Your task to perform on an android device: change notifications settings Image 0: 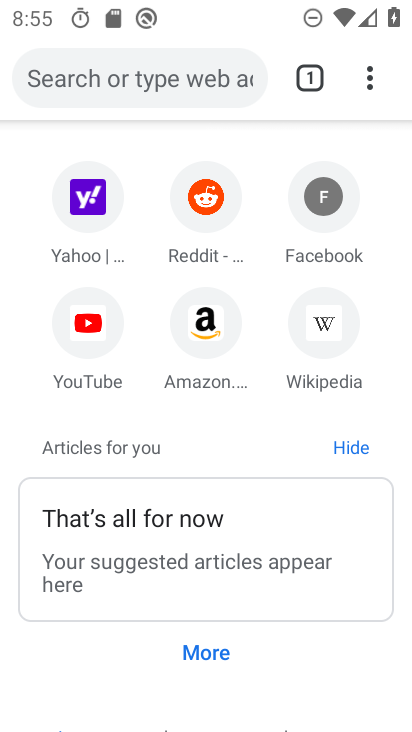
Step 0: press home button
Your task to perform on an android device: change notifications settings Image 1: 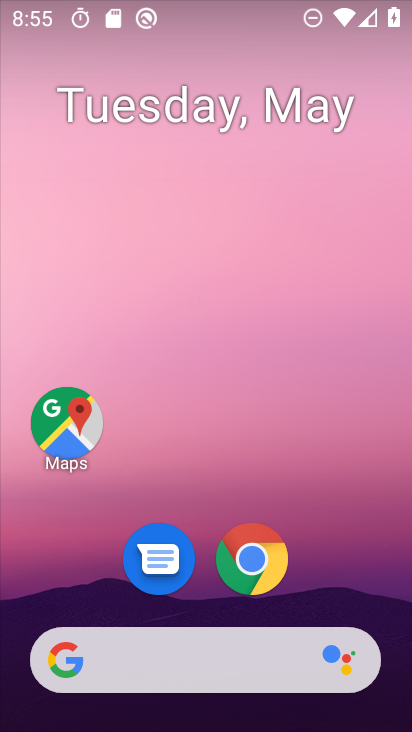
Step 1: drag from (390, 652) to (220, 58)
Your task to perform on an android device: change notifications settings Image 2: 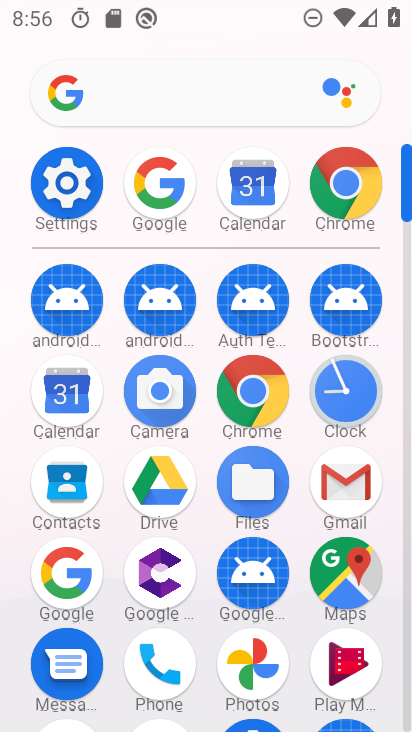
Step 2: click (65, 199)
Your task to perform on an android device: change notifications settings Image 3: 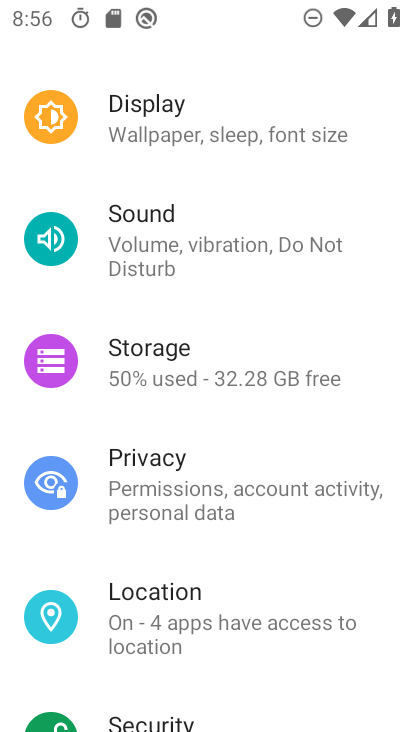
Step 3: drag from (219, 181) to (211, 643)
Your task to perform on an android device: change notifications settings Image 4: 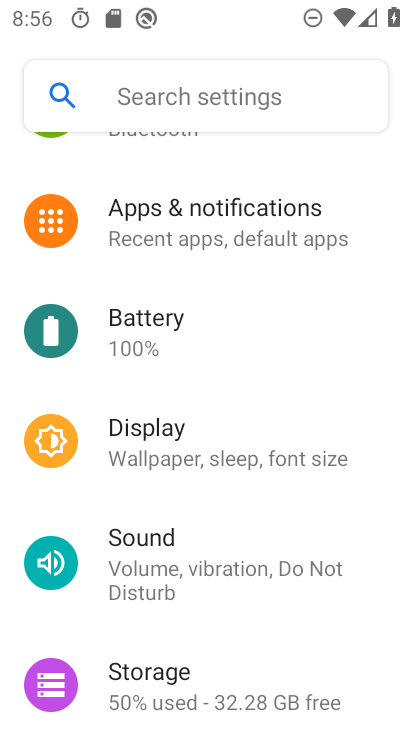
Step 4: click (262, 252)
Your task to perform on an android device: change notifications settings Image 5: 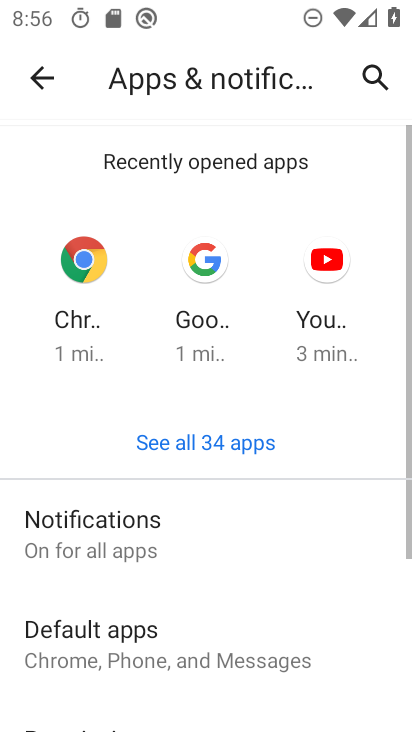
Step 5: click (206, 538)
Your task to perform on an android device: change notifications settings Image 6: 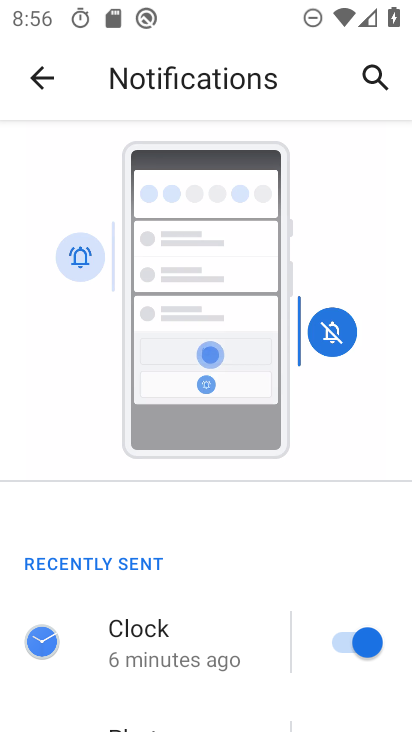
Step 6: task complete